Your task to perform on an android device: turn on wifi Image 0: 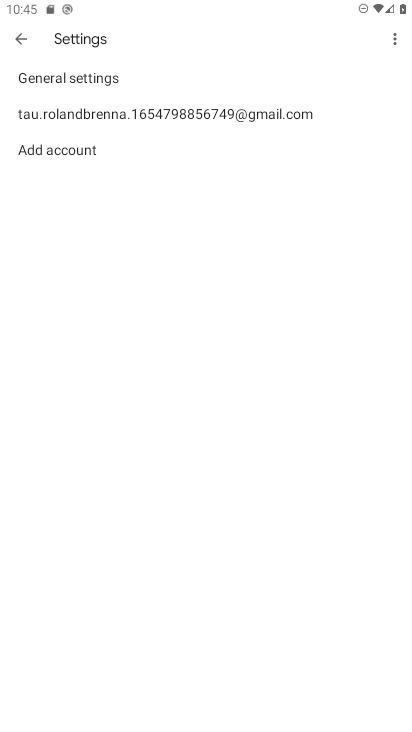
Step 0: press home button
Your task to perform on an android device: turn on wifi Image 1: 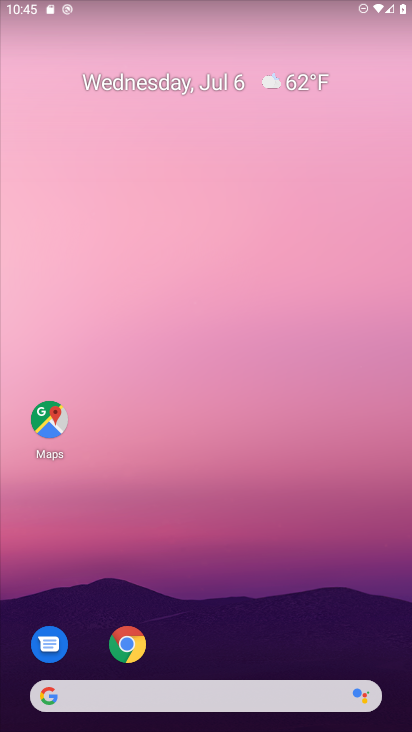
Step 1: drag from (258, 262) to (258, 27)
Your task to perform on an android device: turn on wifi Image 2: 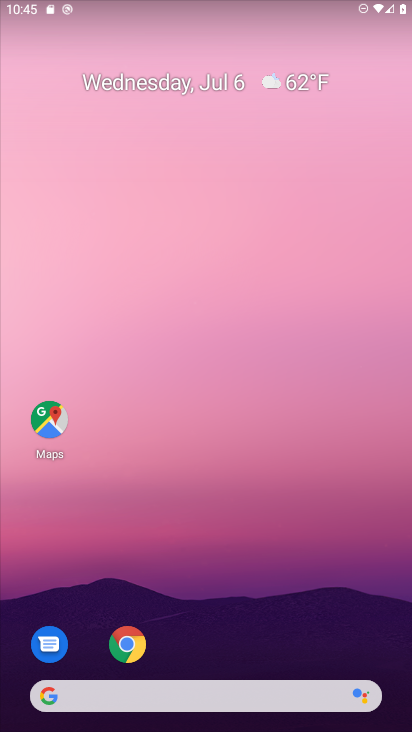
Step 2: drag from (243, 526) to (345, 16)
Your task to perform on an android device: turn on wifi Image 3: 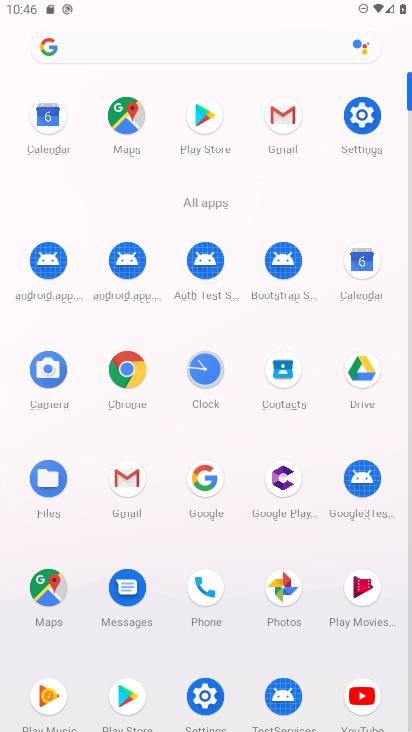
Step 3: click (369, 112)
Your task to perform on an android device: turn on wifi Image 4: 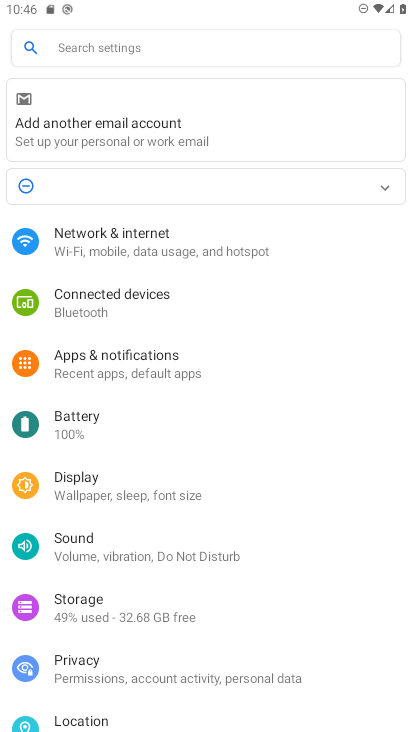
Step 4: click (165, 244)
Your task to perform on an android device: turn on wifi Image 5: 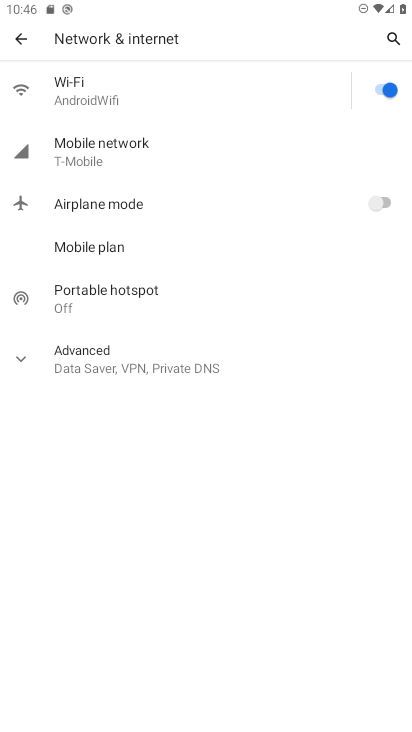
Step 5: click (99, 90)
Your task to perform on an android device: turn on wifi Image 6: 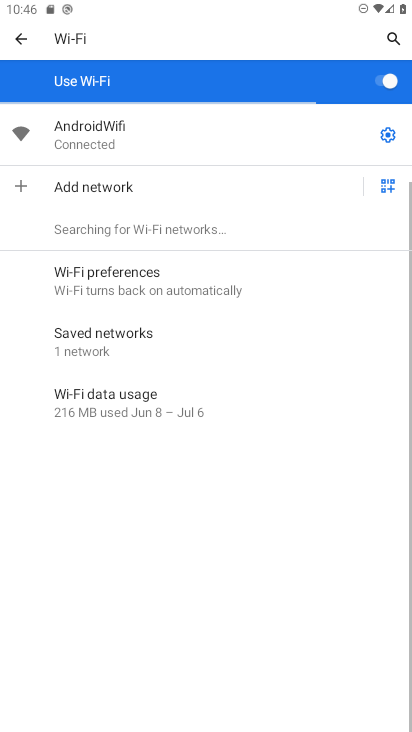
Step 6: task complete